Your task to perform on an android device: search for starred emails in the gmail app Image 0: 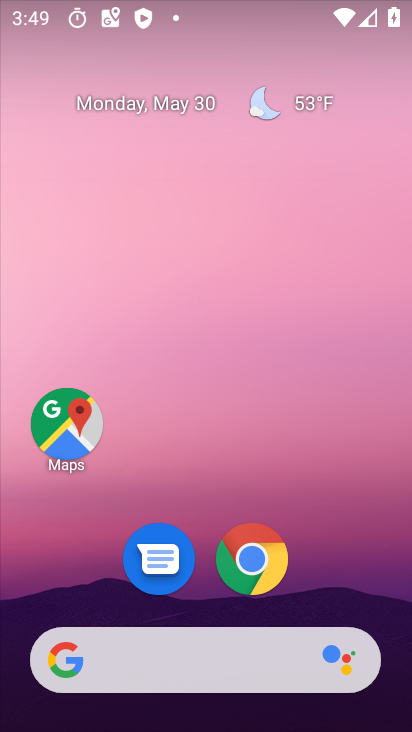
Step 0: drag from (234, 725) to (250, 18)
Your task to perform on an android device: search for starred emails in the gmail app Image 1: 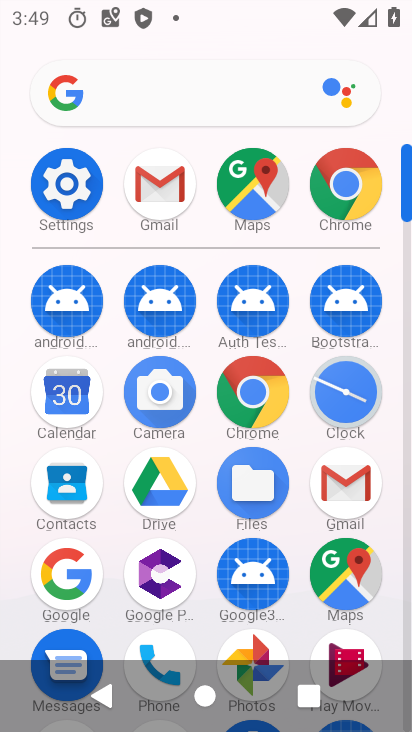
Step 1: click (340, 481)
Your task to perform on an android device: search for starred emails in the gmail app Image 2: 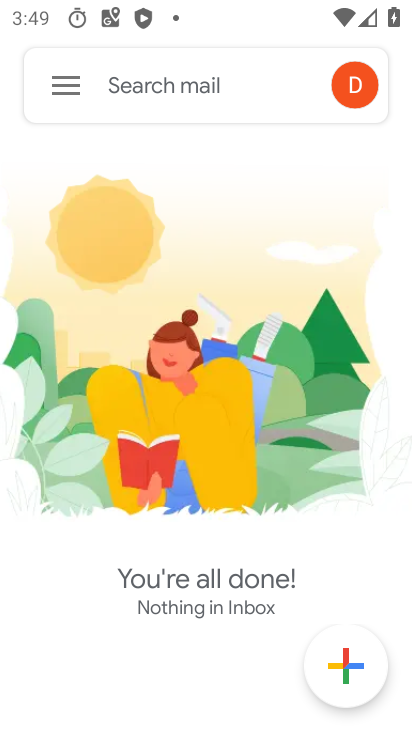
Step 2: click (65, 84)
Your task to perform on an android device: search for starred emails in the gmail app Image 3: 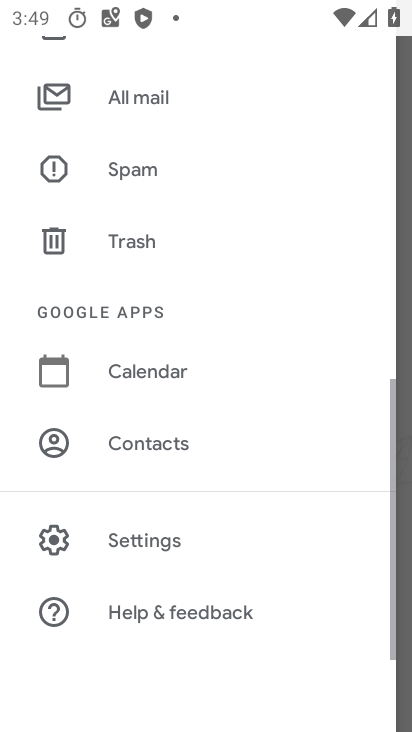
Step 3: drag from (184, 185) to (210, 523)
Your task to perform on an android device: search for starred emails in the gmail app Image 4: 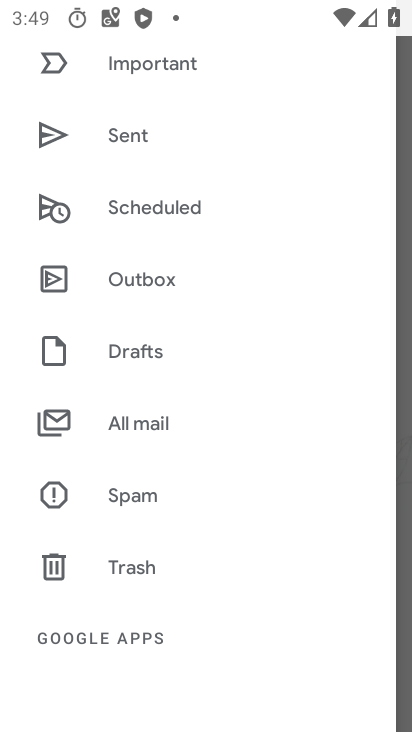
Step 4: drag from (189, 177) to (236, 566)
Your task to perform on an android device: search for starred emails in the gmail app Image 5: 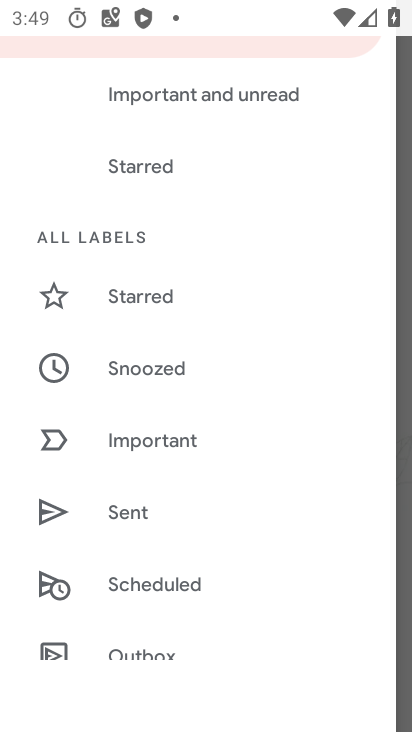
Step 5: click (142, 293)
Your task to perform on an android device: search for starred emails in the gmail app Image 6: 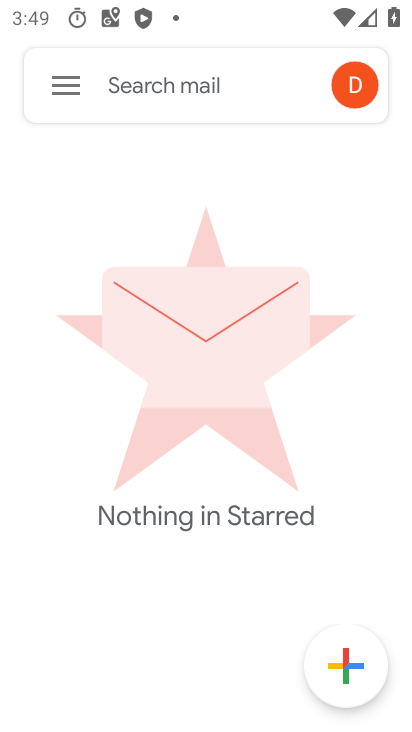
Step 6: task complete